Your task to perform on an android device: toggle data saver in the chrome app Image 0: 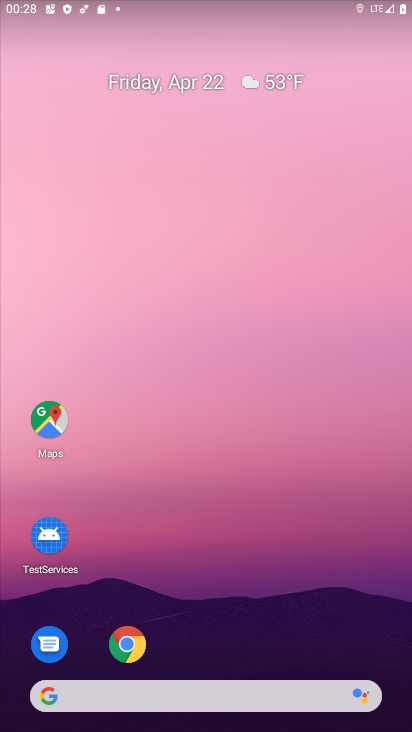
Step 0: drag from (312, 574) to (266, 160)
Your task to perform on an android device: toggle data saver in the chrome app Image 1: 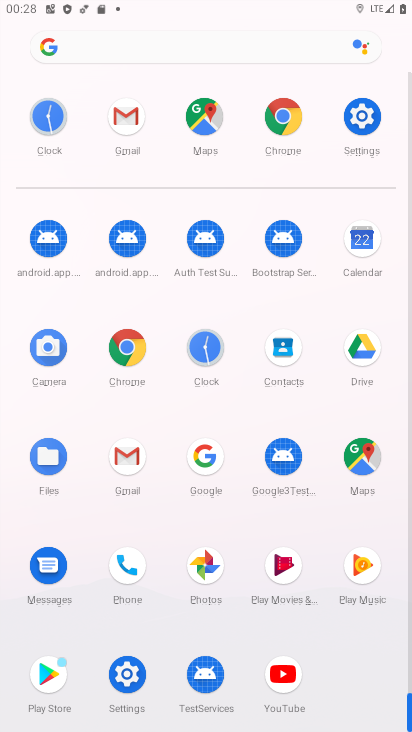
Step 1: click (126, 354)
Your task to perform on an android device: toggle data saver in the chrome app Image 2: 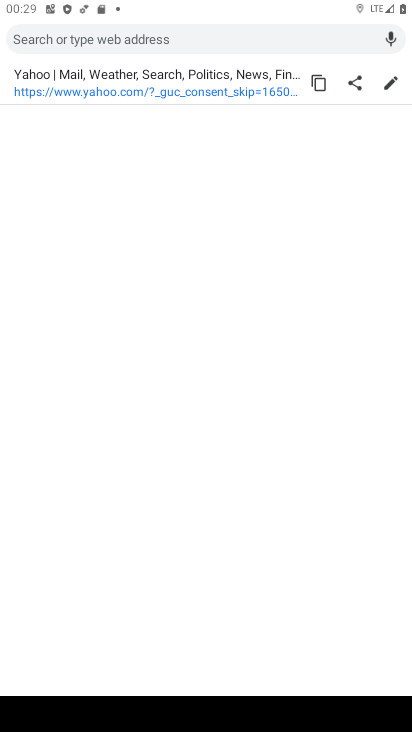
Step 2: press back button
Your task to perform on an android device: toggle data saver in the chrome app Image 3: 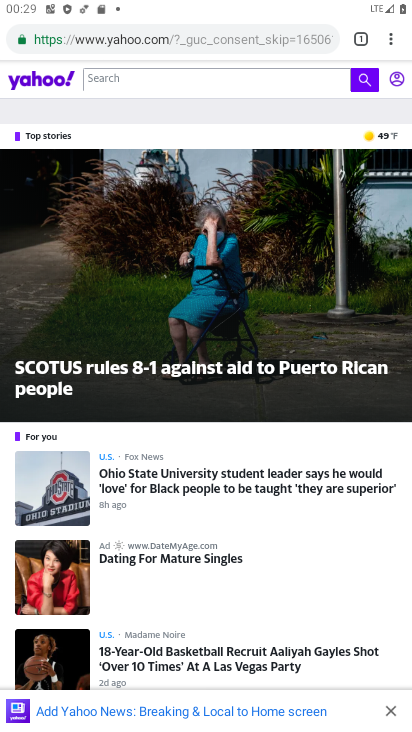
Step 3: click (394, 34)
Your task to perform on an android device: toggle data saver in the chrome app Image 4: 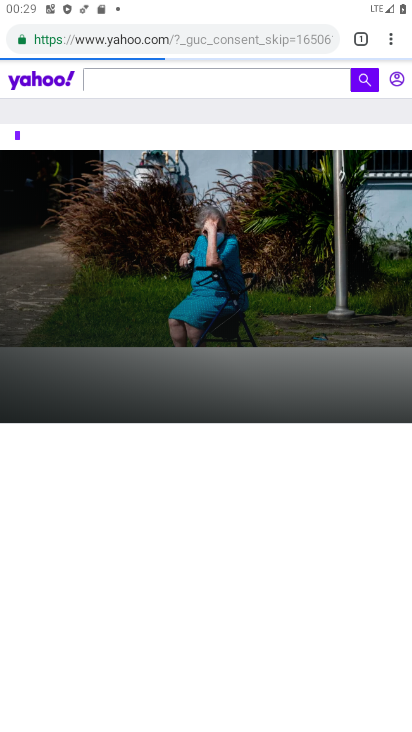
Step 4: click (388, 31)
Your task to perform on an android device: toggle data saver in the chrome app Image 5: 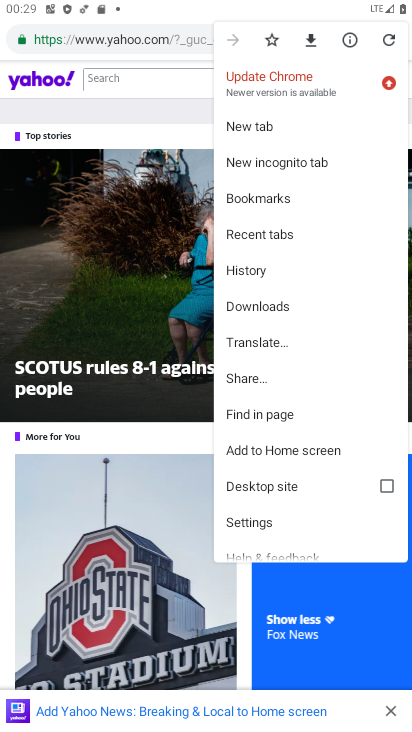
Step 5: click (264, 520)
Your task to perform on an android device: toggle data saver in the chrome app Image 6: 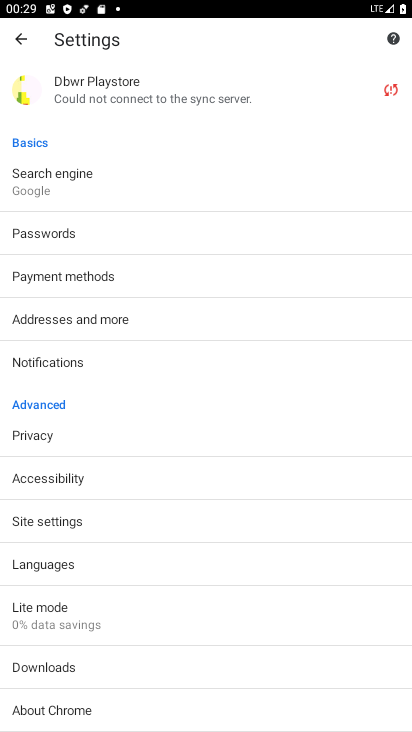
Step 6: drag from (220, 604) to (261, 337)
Your task to perform on an android device: toggle data saver in the chrome app Image 7: 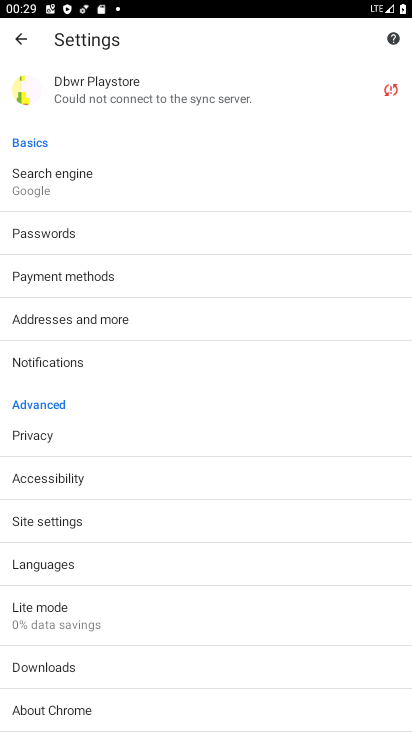
Step 7: click (71, 614)
Your task to perform on an android device: toggle data saver in the chrome app Image 8: 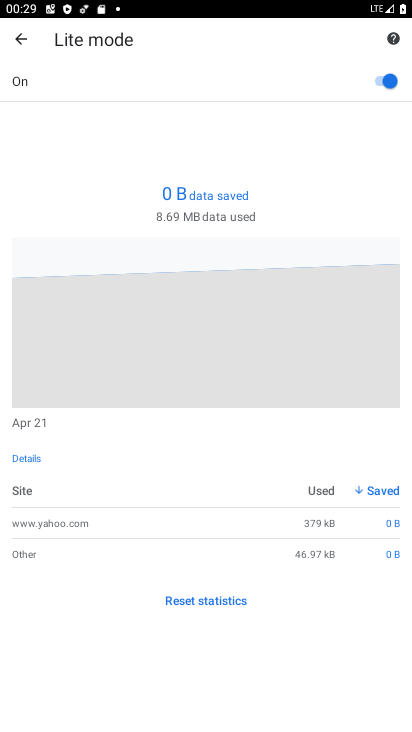
Step 8: click (377, 79)
Your task to perform on an android device: toggle data saver in the chrome app Image 9: 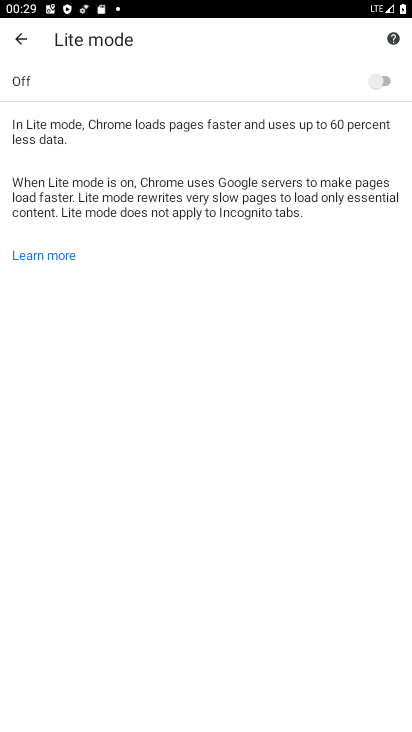
Step 9: task complete